Your task to perform on an android device: toggle notification dots Image 0: 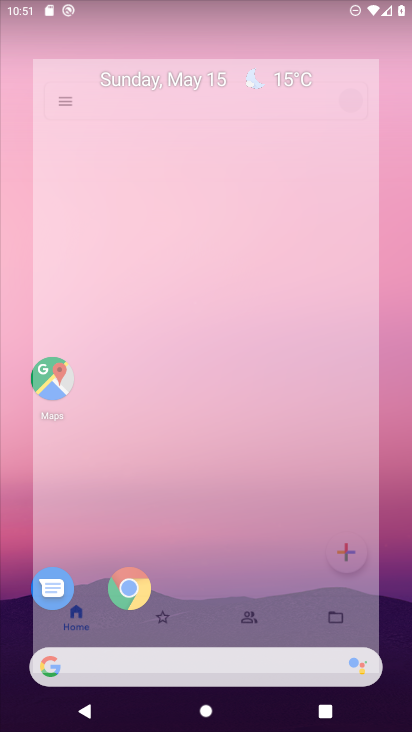
Step 0: drag from (211, 638) to (380, 1)
Your task to perform on an android device: toggle notification dots Image 1: 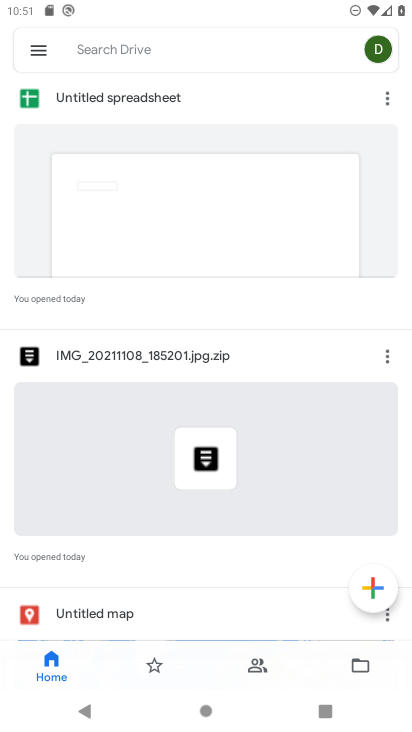
Step 1: press home button
Your task to perform on an android device: toggle notification dots Image 2: 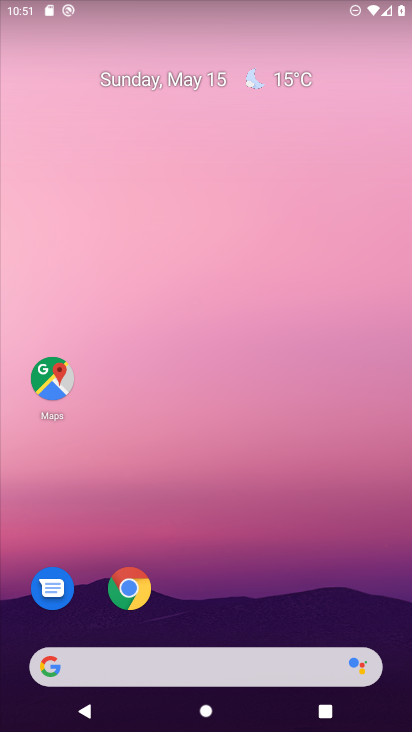
Step 2: drag from (214, 610) to (72, 2)
Your task to perform on an android device: toggle notification dots Image 3: 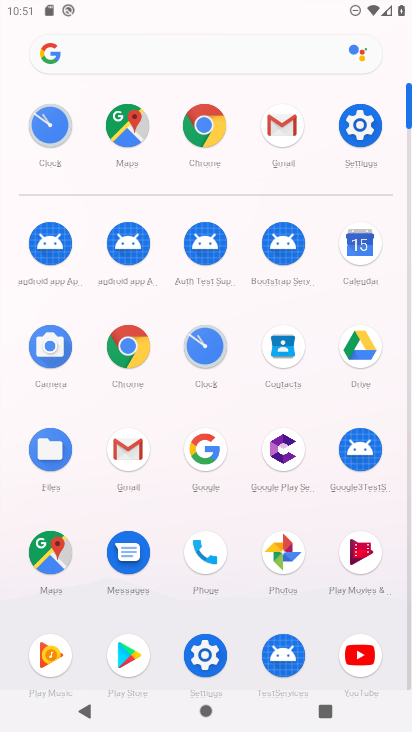
Step 3: click (210, 655)
Your task to perform on an android device: toggle notification dots Image 4: 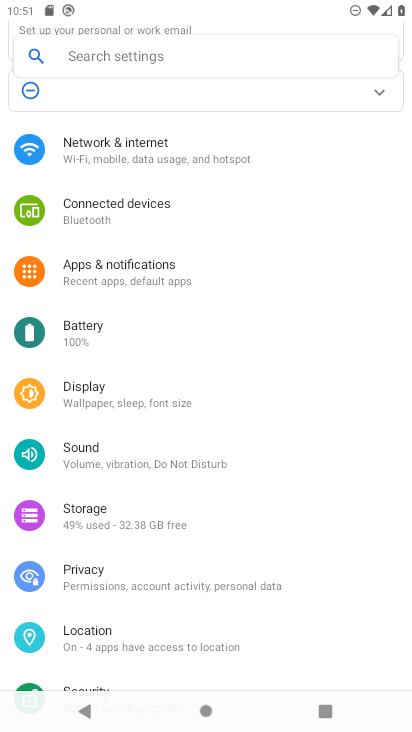
Step 4: click (148, 266)
Your task to perform on an android device: toggle notification dots Image 5: 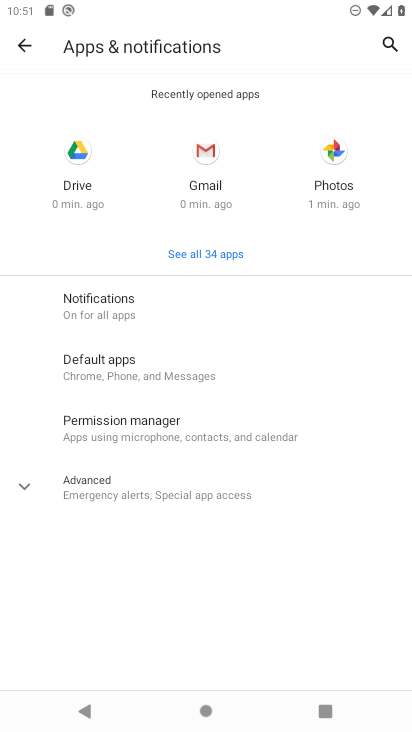
Step 5: click (112, 493)
Your task to perform on an android device: toggle notification dots Image 6: 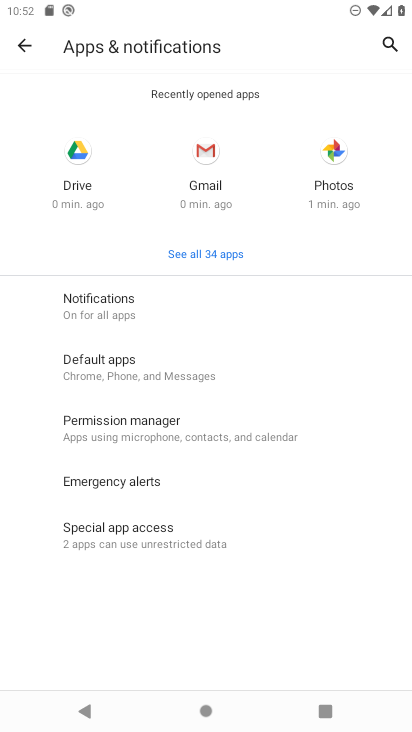
Step 6: click (129, 315)
Your task to perform on an android device: toggle notification dots Image 7: 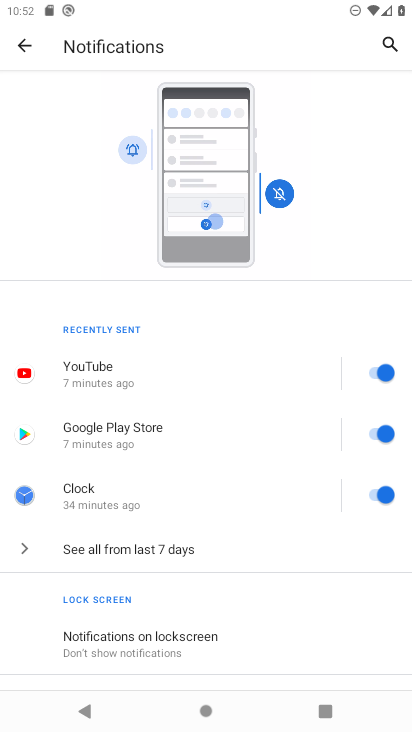
Step 7: drag from (168, 541) to (176, 399)
Your task to perform on an android device: toggle notification dots Image 8: 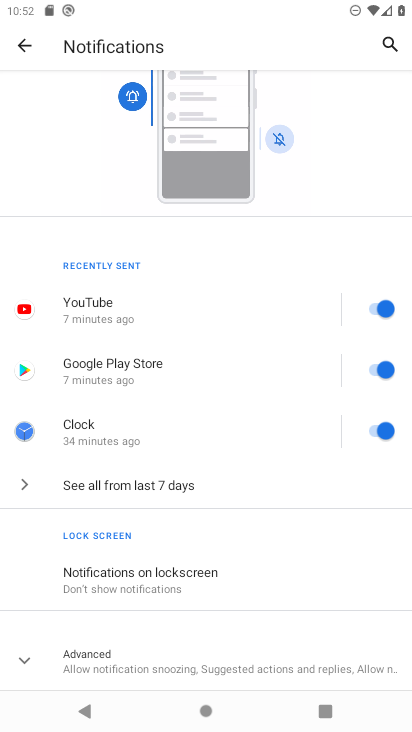
Step 8: click (166, 659)
Your task to perform on an android device: toggle notification dots Image 9: 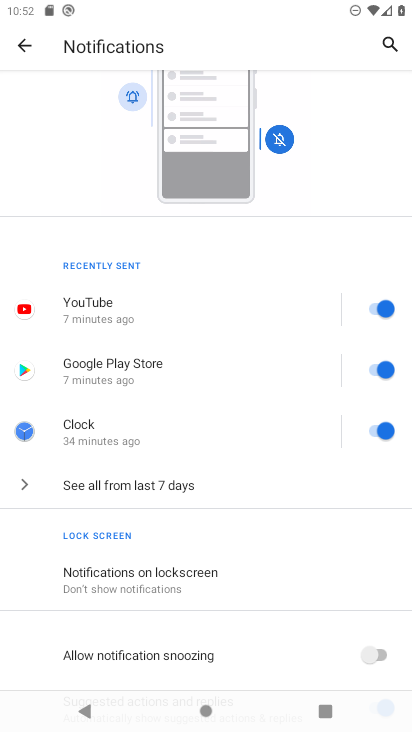
Step 9: drag from (201, 643) to (256, 266)
Your task to perform on an android device: toggle notification dots Image 10: 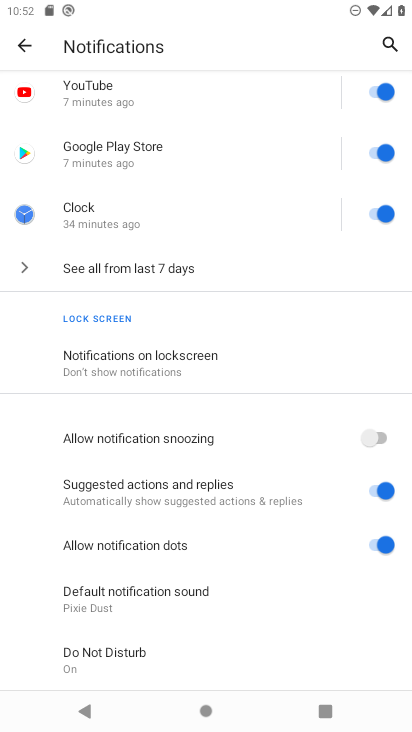
Step 10: click (368, 542)
Your task to perform on an android device: toggle notification dots Image 11: 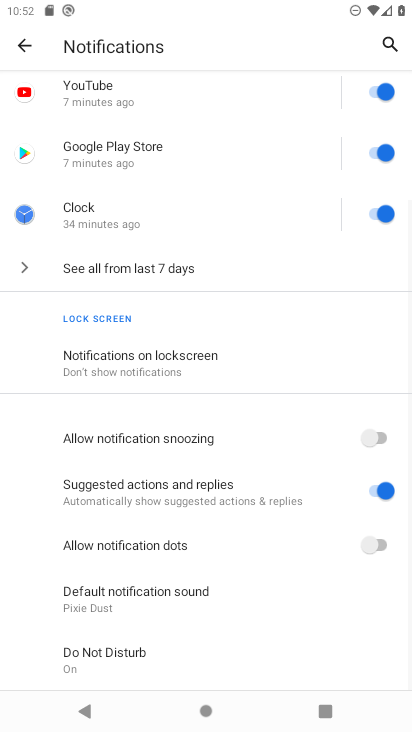
Step 11: task complete